Your task to perform on an android device: Go to Google Image 0: 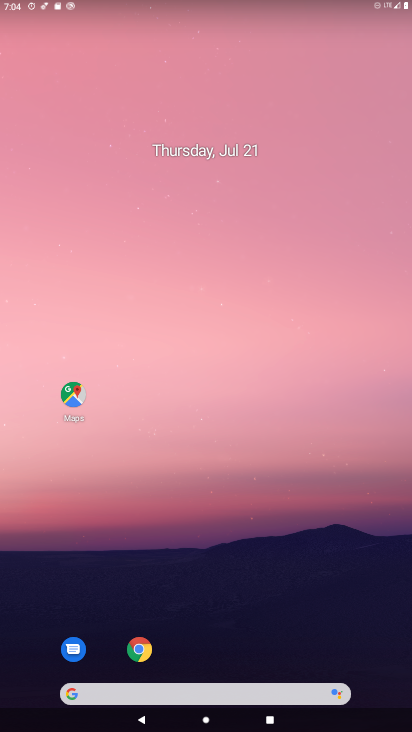
Step 0: drag from (361, 650) to (203, 44)
Your task to perform on an android device: Go to Google Image 1: 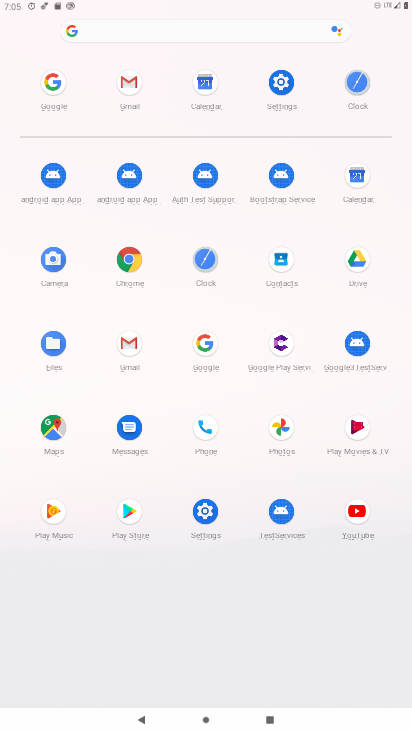
Step 1: click (209, 346)
Your task to perform on an android device: Go to Google Image 2: 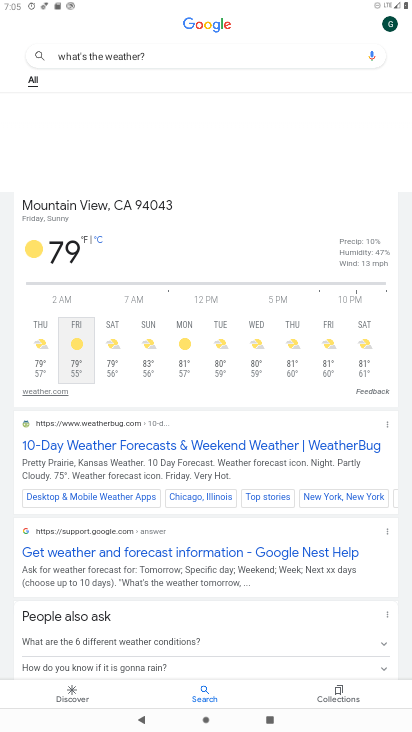
Step 2: task complete